Your task to perform on an android device: Turn on the flashlight Image 0: 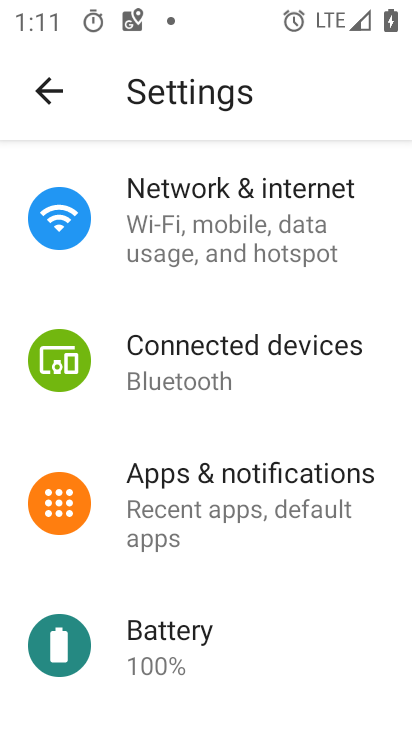
Step 0: drag from (278, 9) to (328, 326)
Your task to perform on an android device: Turn on the flashlight Image 1: 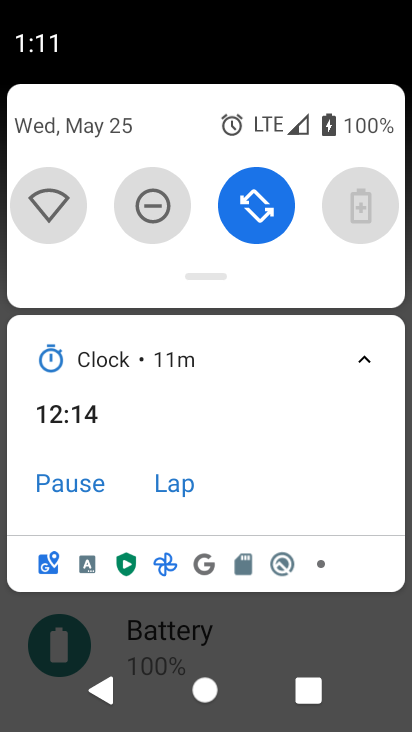
Step 1: task complete